Your task to perform on an android device: What's on my calendar tomorrow? Image 0: 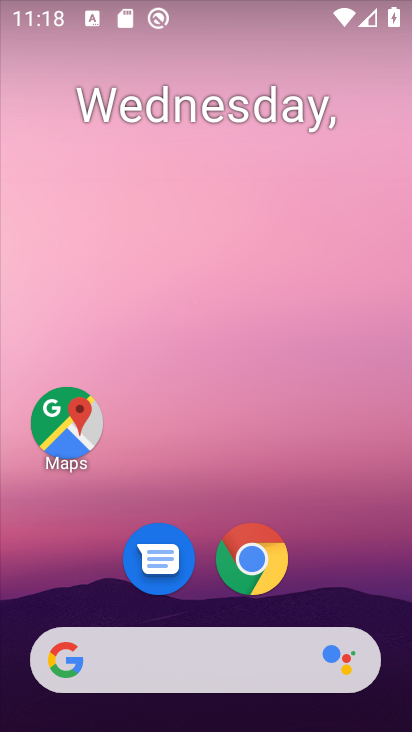
Step 0: drag from (244, 548) to (255, 18)
Your task to perform on an android device: What's on my calendar tomorrow? Image 1: 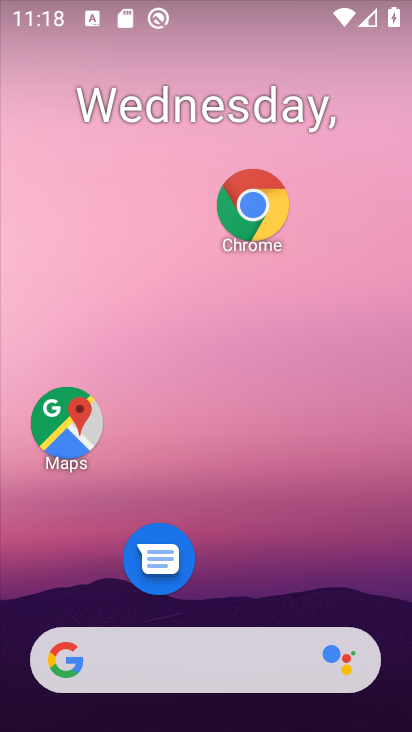
Step 1: drag from (344, 583) to (336, 33)
Your task to perform on an android device: What's on my calendar tomorrow? Image 2: 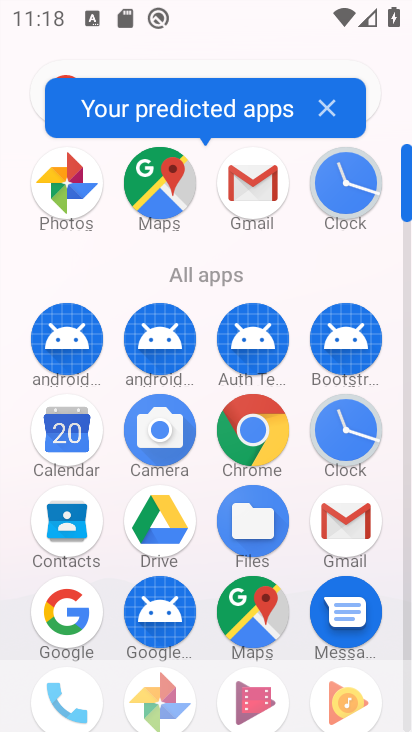
Step 2: click (84, 433)
Your task to perform on an android device: What's on my calendar tomorrow? Image 3: 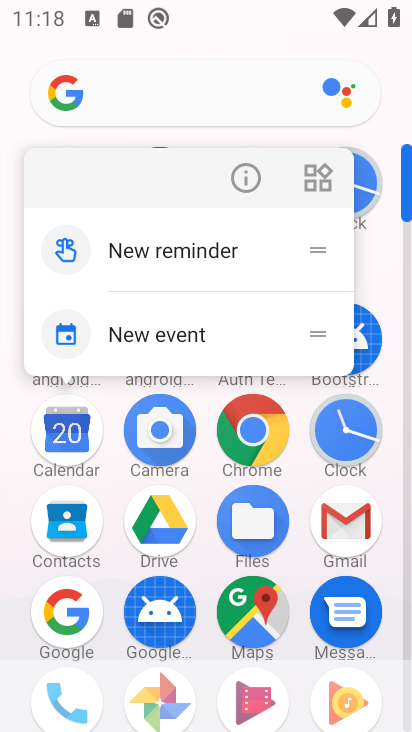
Step 3: click (83, 434)
Your task to perform on an android device: What's on my calendar tomorrow? Image 4: 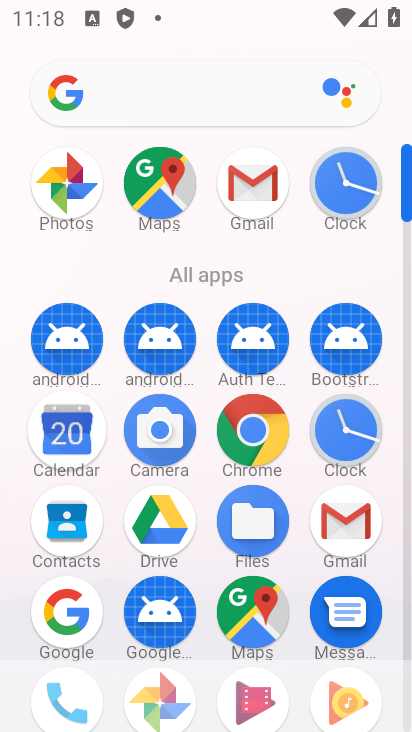
Step 4: click (83, 434)
Your task to perform on an android device: What's on my calendar tomorrow? Image 5: 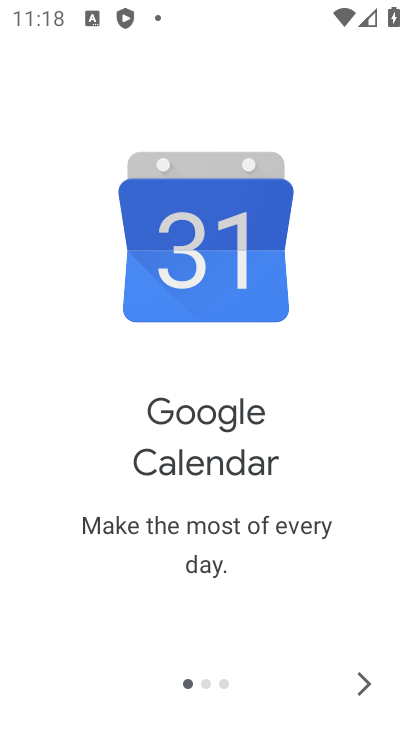
Step 5: click (353, 679)
Your task to perform on an android device: What's on my calendar tomorrow? Image 6: 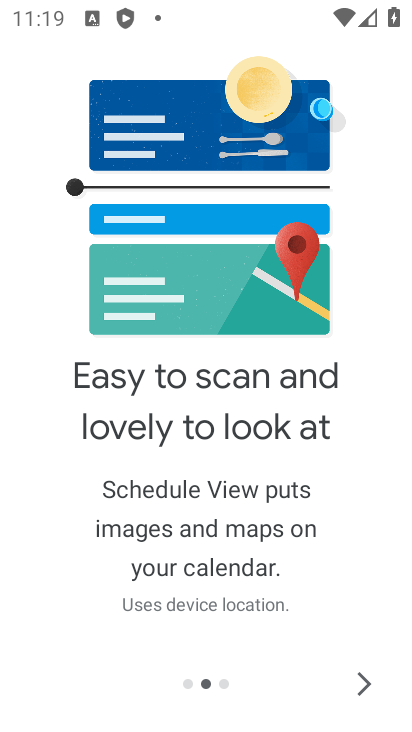
Step 6: click (354, 679)
Your task to perform on an android device: What's on my calendar tomorrow? Image 7: 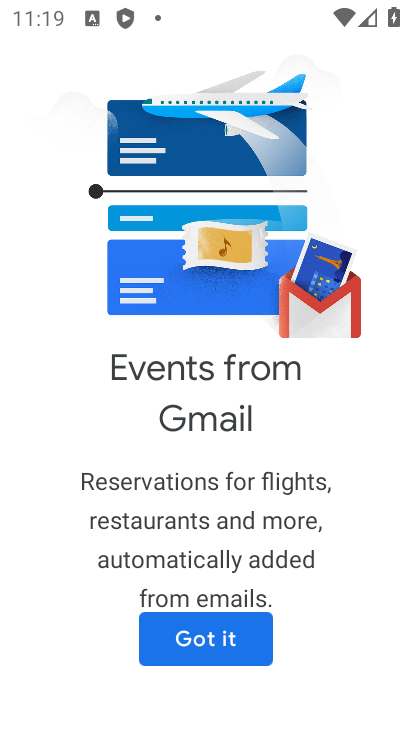
Step 7: click (219, 654)
Your task to perform on an android device: What's on my calendar tomorrow? Image 8: 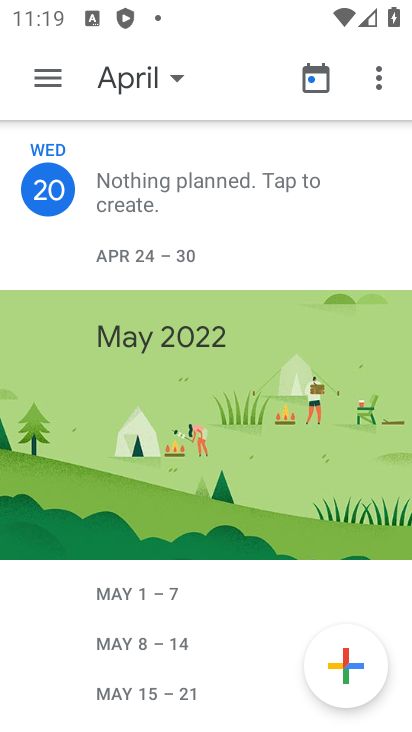
Step 8: click (174, 75)
Your task to perform on an android device: What's on my calendar tomorrow? Image 9: 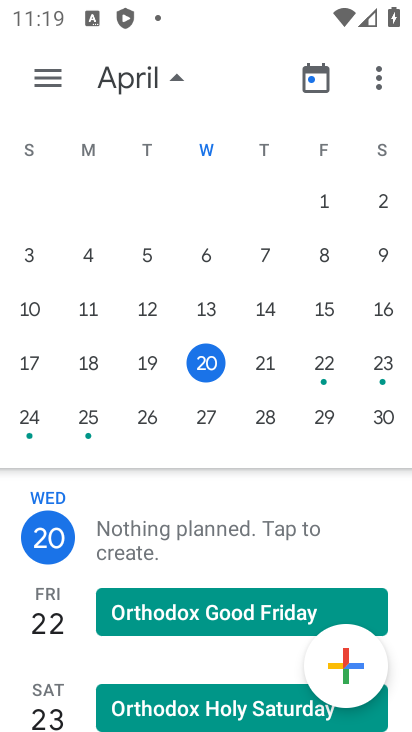
Step 9: click (268, 357)
Your task to perform on an android device: What's on my calendar tomorrow? Image 10: 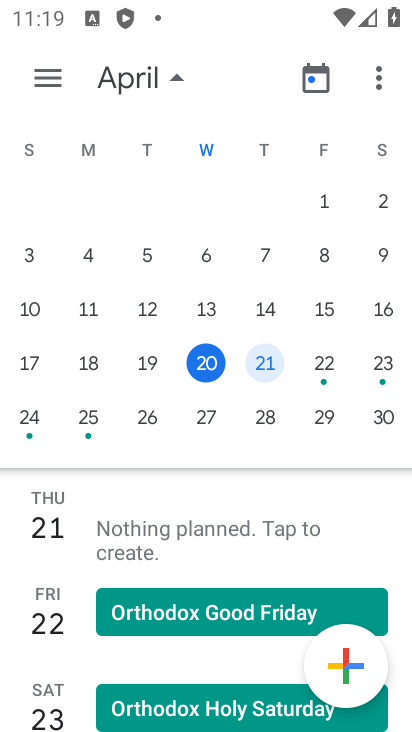
Step 10: task complete